Your task to perform on an android device: turn on translation in the chrome app Image 0: 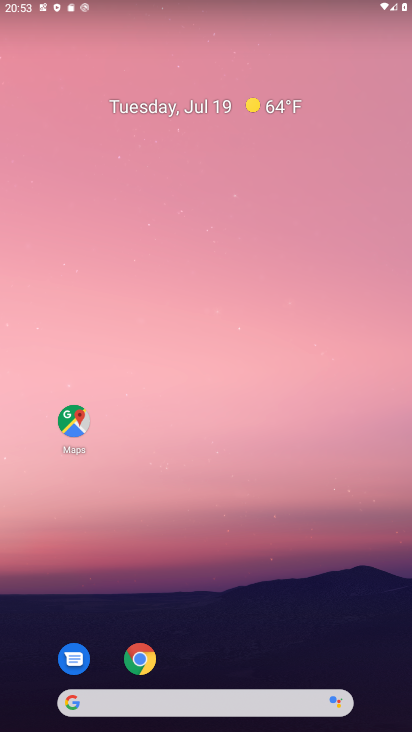
Step 0: click (136, 653)
Your task to perform on an android device: turn on translation in the chrome app Image 1: 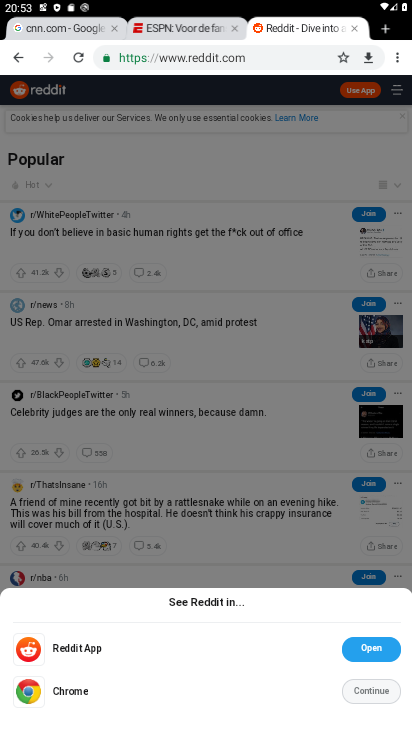
Step 1: click (401, 62)
Your task to perform on an android device: turn on translation in the chrome app Image 2: 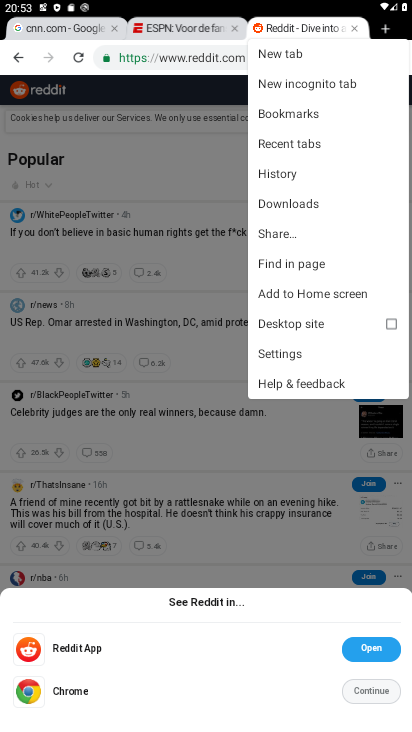
Step 2: click (272, 351)
Your task to perform on an android device: turn on translation in the chrome app Image 3: 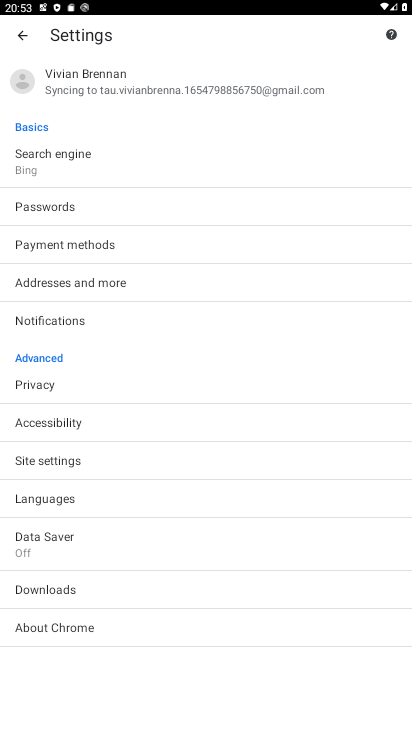
Step 3: click (78, 503)
Your task to perform on an android device: turn on translation in the chrome app Image 4: 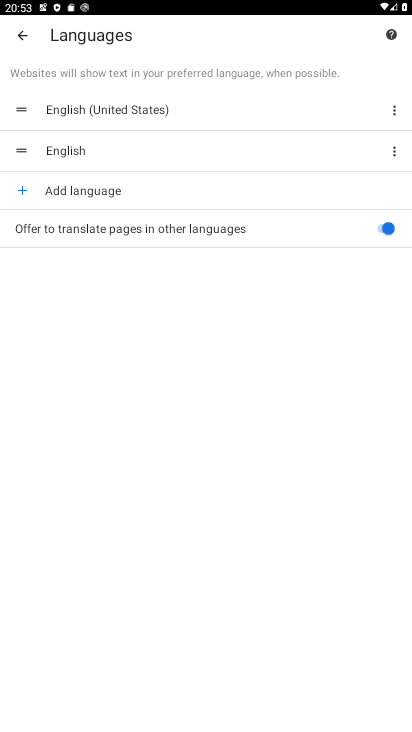
Step 4: task complete